Your task to perform on an android device: make emails show in primary in the gmail app Image 0: 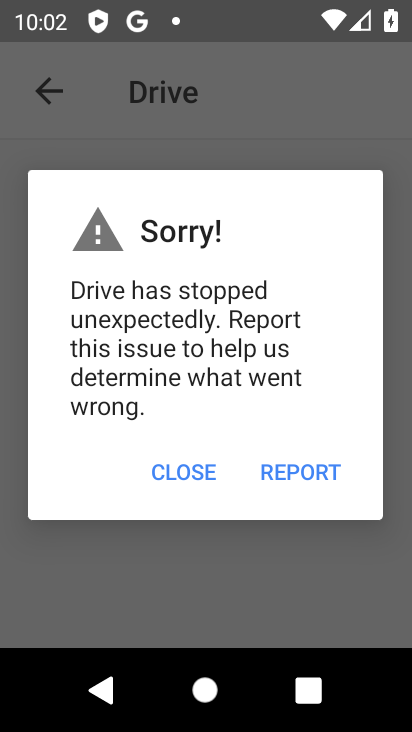
Step 0: press back button
Your task to perform on an android device: make emails show in primary in the gmail app Image 1: 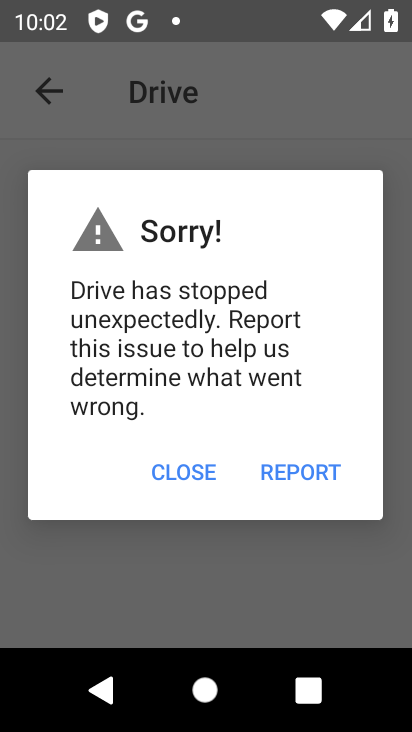
Step 1: press back button
Your task to perform on an android device: make emails show in primary in the gmail app Image 2: 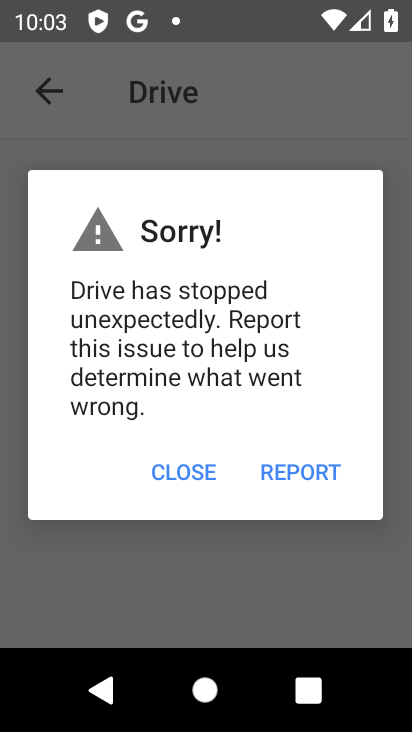
Step 2: press back button
Your task to perform on an android device: make emails show in primary in the gmail app Image 3: 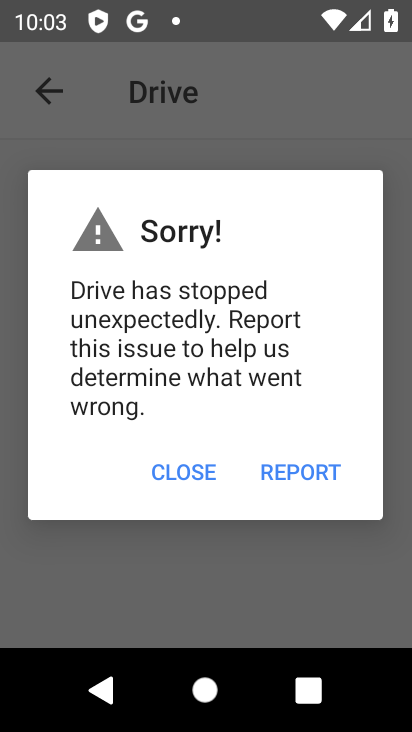
Step 3: press back button
Your task to perform on an android device: make emails show in primary in the gmail app Image 4: 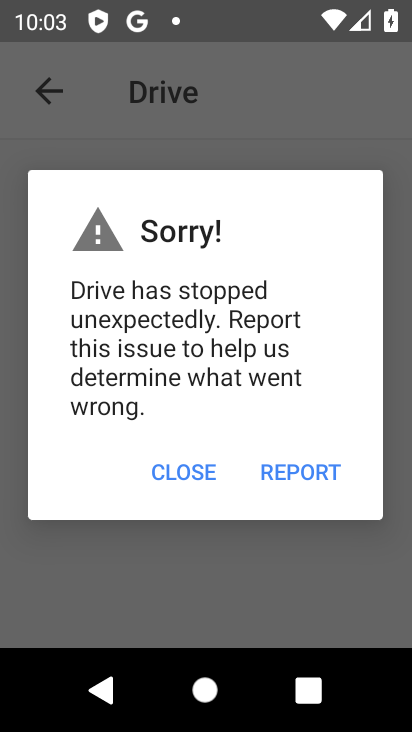
Step 4: press home button
Your task to perform on an android device: make emails show in primary in the gmail app Image 5: 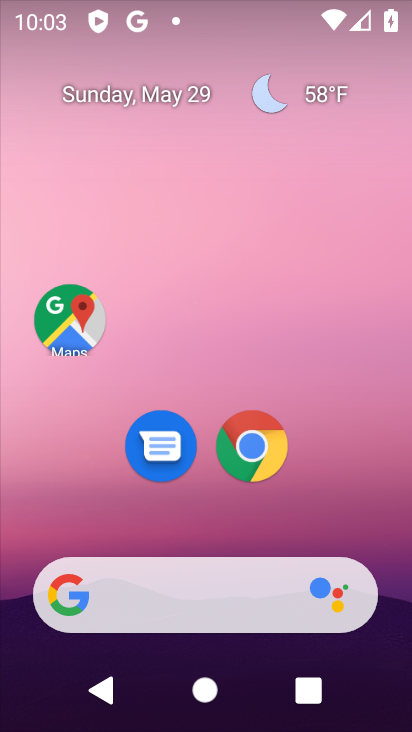
Step 5: drag from (349, 527) to (229, 37)
Your task to perform on an android device: make emails show in primary in the gmail app Image 6: 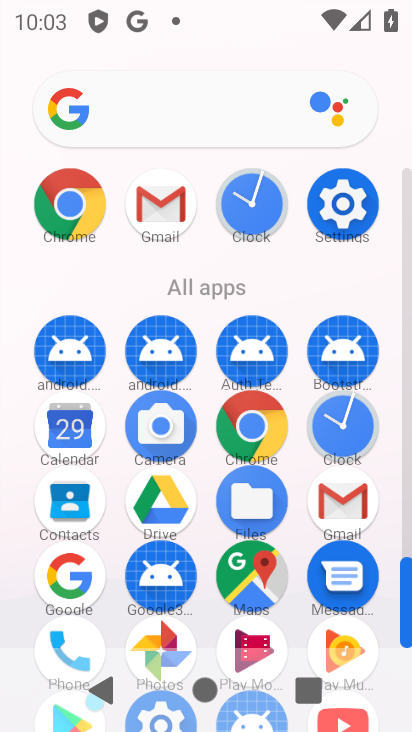
Step 6: click (160, 200)
Your task to perform on an android device: make emails show in primary in the gmail app Image 7: 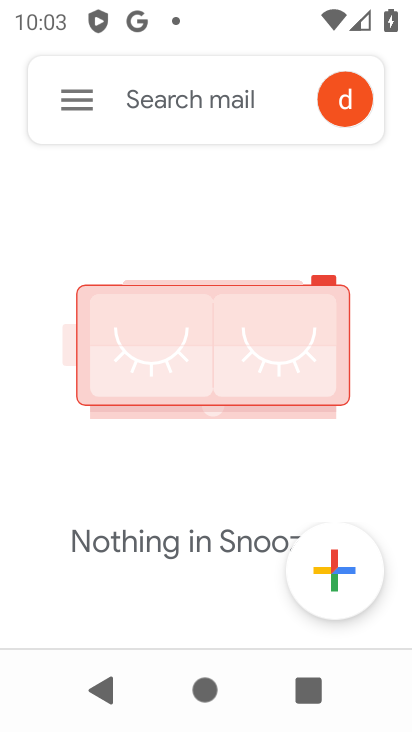
Step 7: click (66, 84)
Your task to perform on an android device: make emails show in primary in the gmail app Image 8: 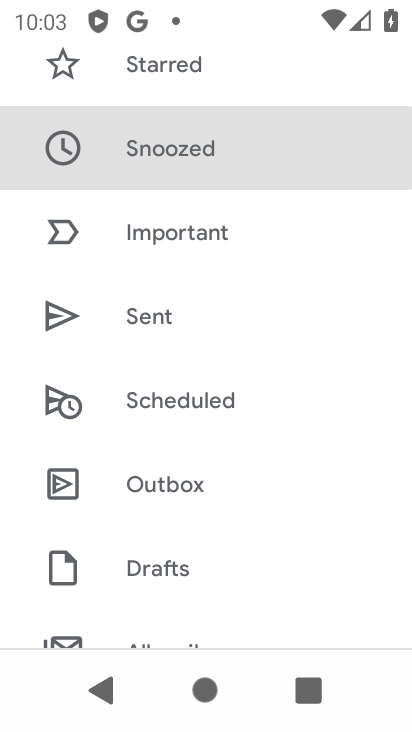
Step 8: drag from (247, 197) to (250, 576)
Your task to perform on an android device: make emails show in primary in the gmail app Image 9: 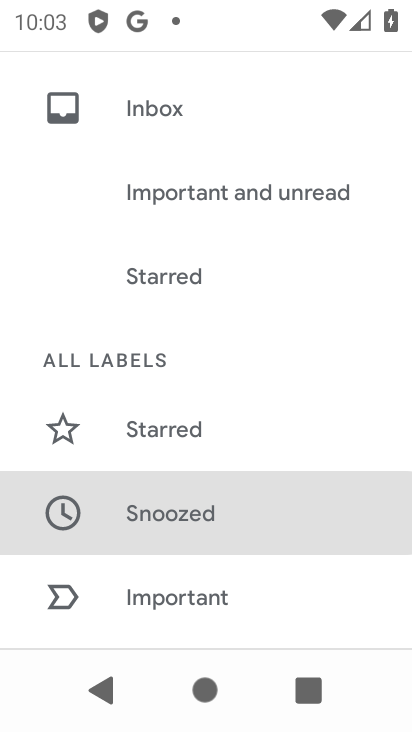
Step 9: drag from (260, 258) to (264, 546)
Your task to perform on an android device: make emails show in primary in the gmail app Image 10: 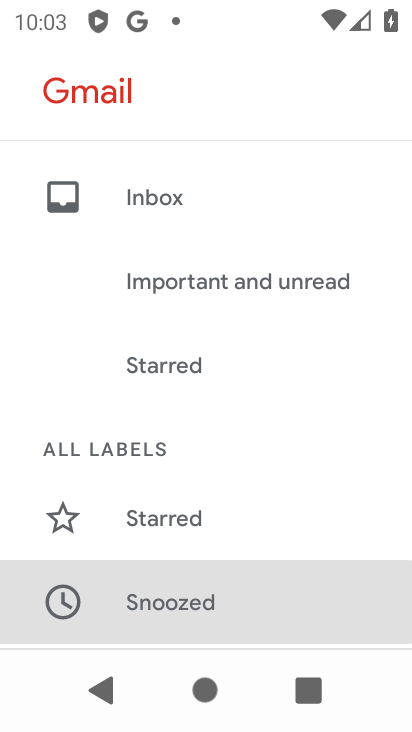
Step 10: drag from (241, 530) to (241, 94)
Your task to perform on an android device: make emails show in primary in the gmail app Image 11: 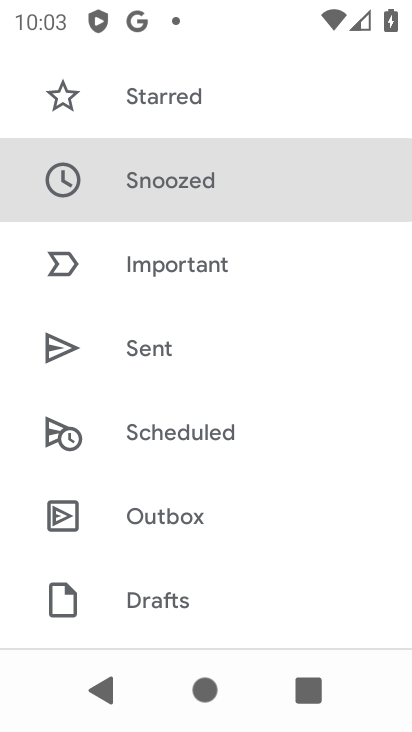
Step 11: drag from (265, 558) to (253, 113)
Your task to perform on an android device: make emails show in primary in the gmail app Image 12: 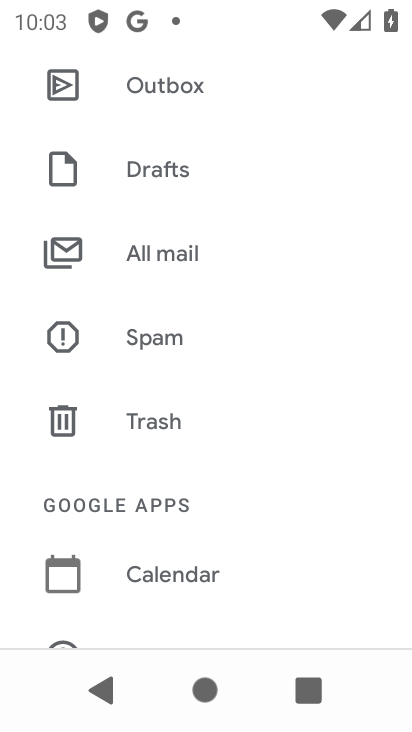
Step 12: drag from (246, 583) to (241, 99)
Your task to perform on an android device: make emails show in primary in the gmail app Image 13: 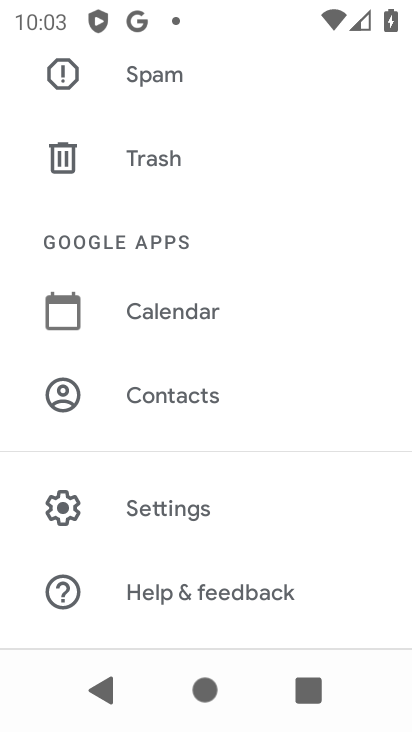
Step 13: drag from (240, 595) to (239, 123)
Your task to perform on an android device: make emails show in primary in the gmail app Image 14: 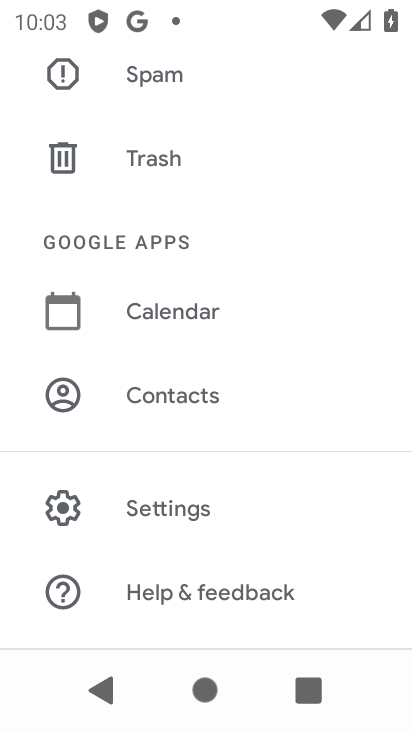
Step 14: drag from (241, 502) to (245, 233)
Your task to perform on an android device: make emails show in primary in the gmail app Image 15: 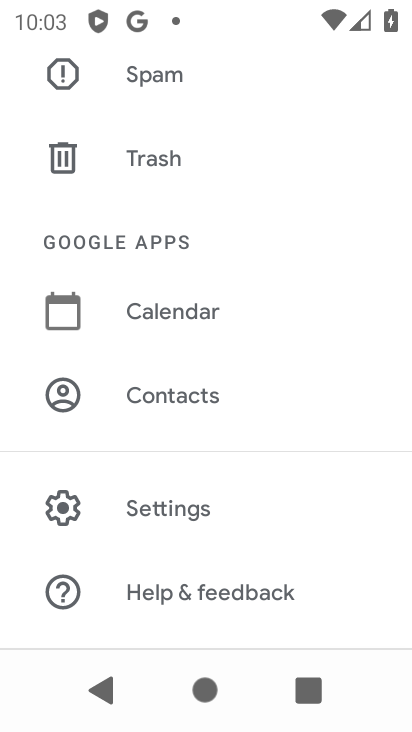
Step 15: click (168, 518)
Your task to perform on an android device: make emails show in primary in the gmail app Image 16: 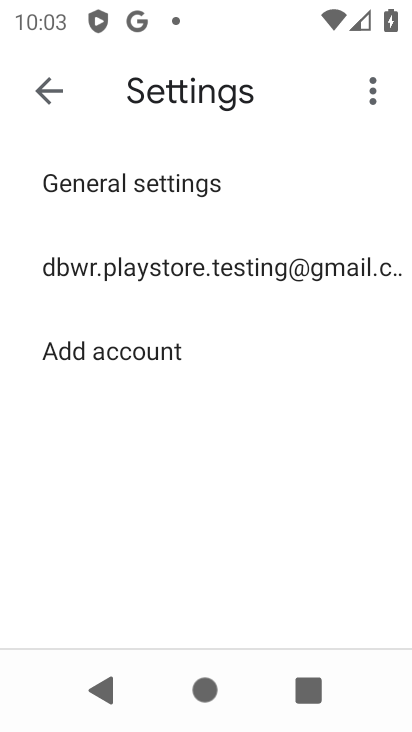
Step 16: click (215, 266)
Your task to perform on an android device: make emails show in primary in the gmail app Image 17: 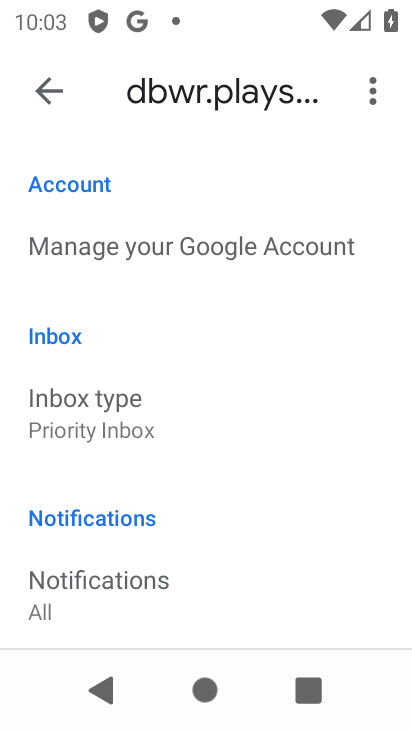
Step 17: click (154, 427)
Your task to perform on an android device: make emails show in primary in the gmail app Image 18: 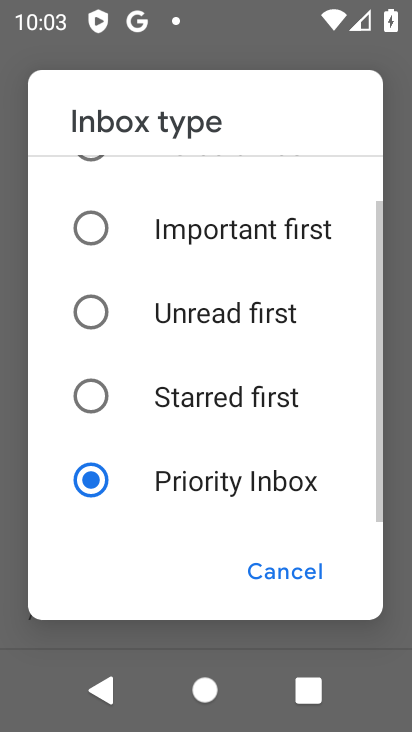
Step 18: drag from (226, 187) to (233, 490)
Your task to perform on an android device: make emails show in primary in the gmail app Image 19: 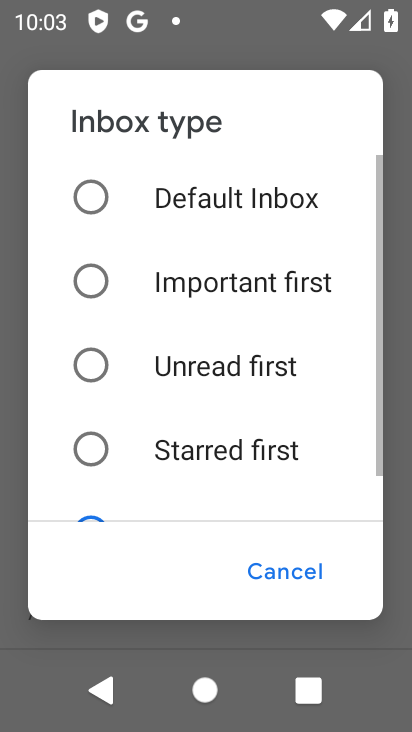
Step 19: click (167, 187)
Your task to perform on an android device: make emails show in primary in the gmail app Image 20: 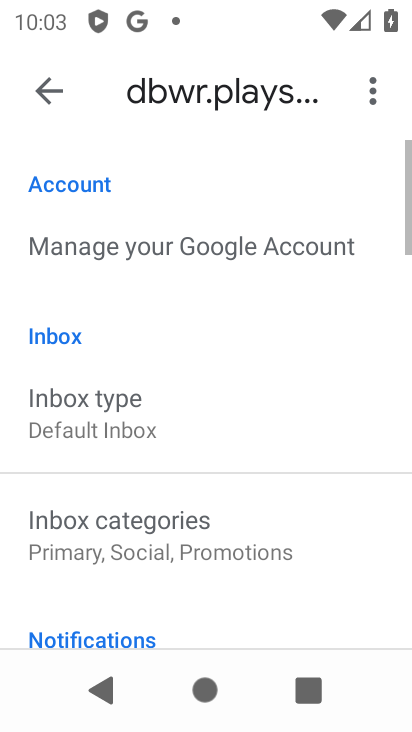
Step 20: click (139, 530)
Your task to perform on an android device: make emails show in primary in the gmail app Image 21: 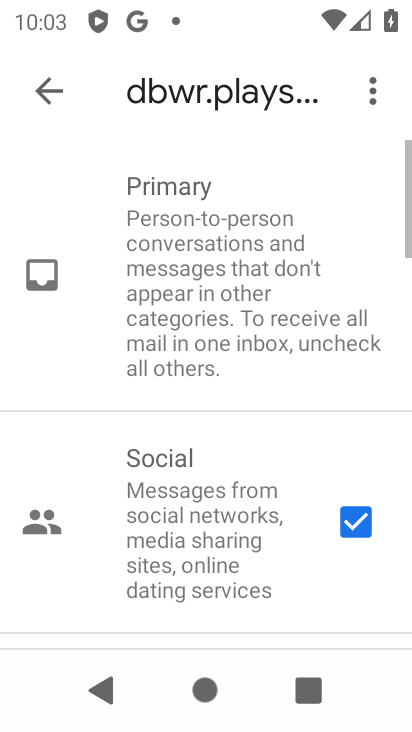
Step 21: click (333, 524)
Your task to perform on an android device: make emails show in primary in the gmail app Image 22: 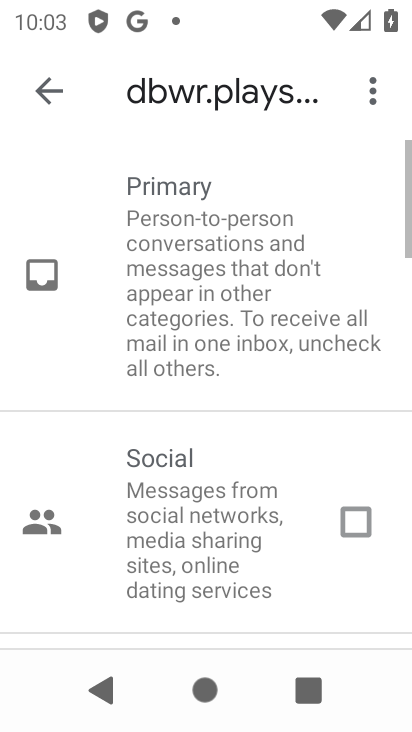
Step 22: drag from (237, 562) to (211, 182)
Your task to perform on an android device: make emails show in primary in the gmail app Image 23: 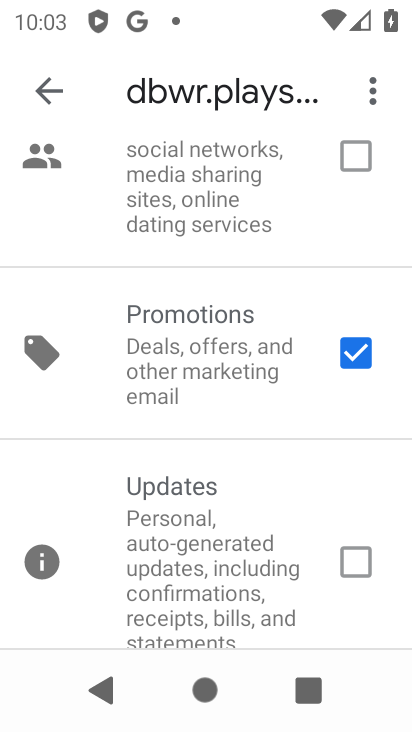
Step 23: click (359, 363)
Your task to perform on an android device: make emails show in primary in the gmail app Image 24: 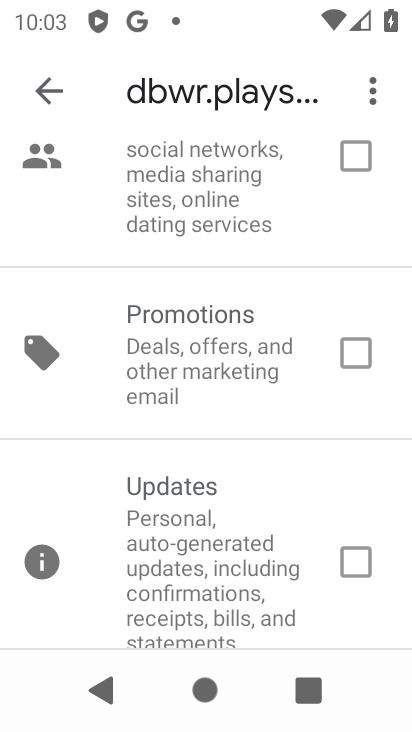
Step 24: click (35, 78)
Your task to perform on an android device: make emails show in primary in the gmail app Image 25: 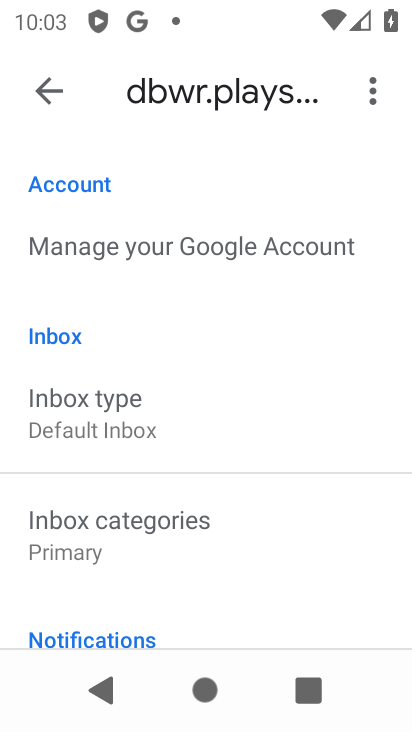
Step 25: task complete